Your task to perform on an android device: Do I have any events today? Image 0: 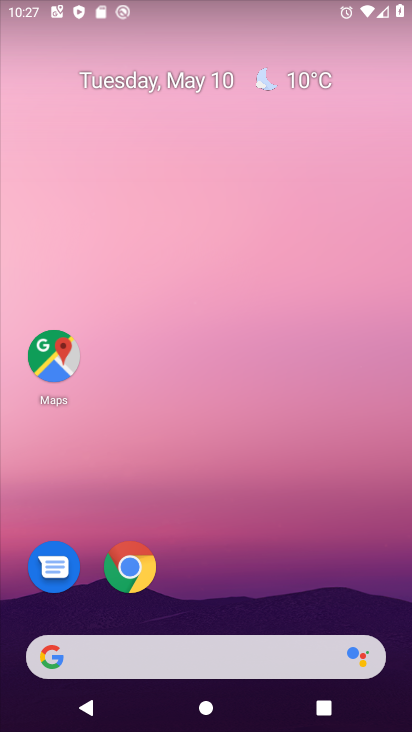
Step 0: drag from (349, 595) to (360, 0)
Your task to perform on an android device: Do I have any events today? Image 1: 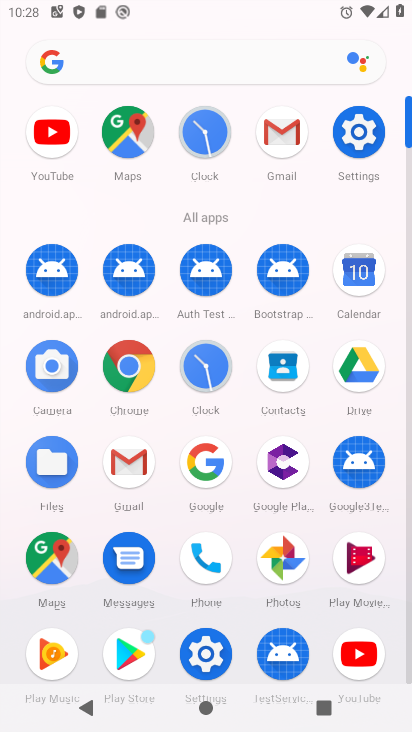
Step 1: click (346, 280)
Your task to perform on an android device: Do I have any events today? Image 2: 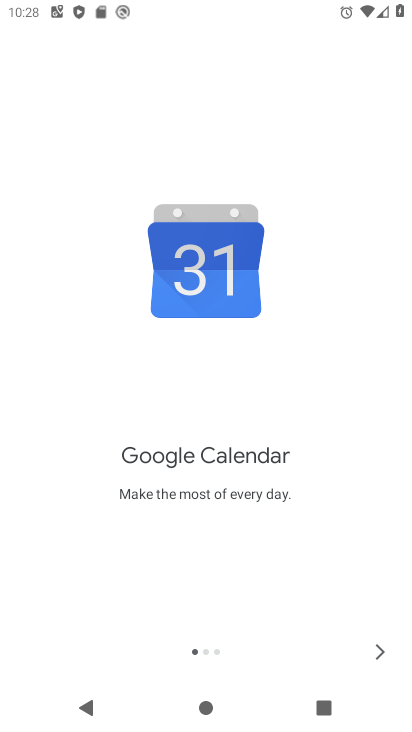
Step 2: click (373, 654)
Your task to perform on an android device: Do I have any events today? Image 3: 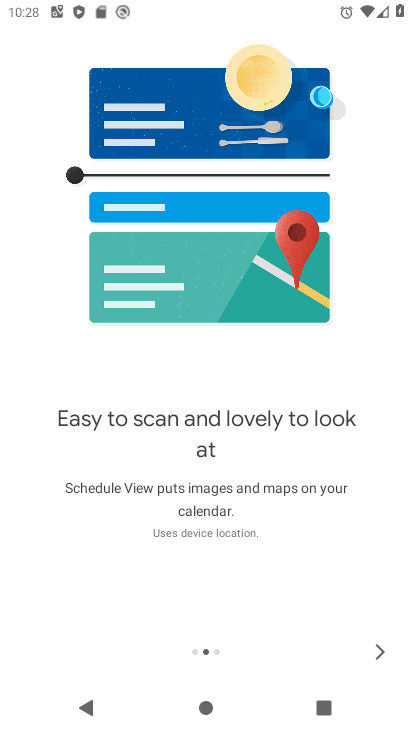
Step 3: click (373, 654)
Your task to perform on an android device: Do I have any events today? Image 4: 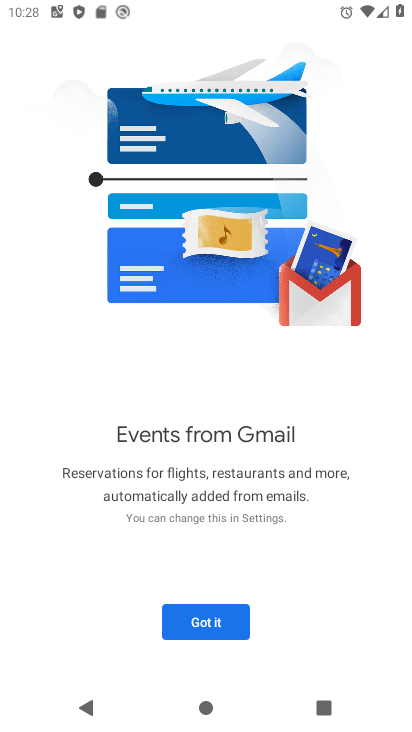
Step 4: click (228, 624)
Your task to perform on an android device: Do I have any events today? Image 5: 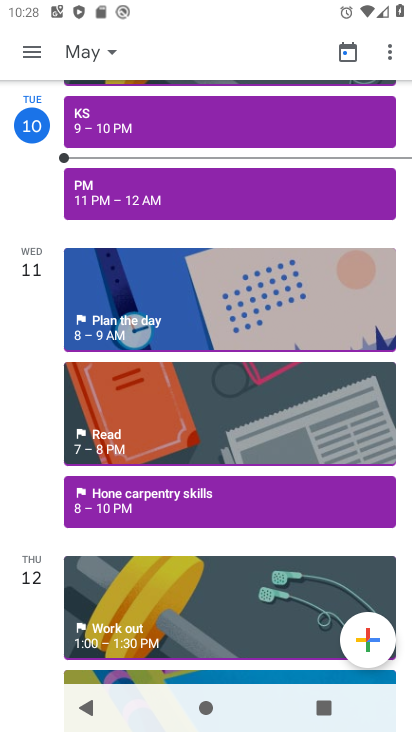
Step 5: click (110, 198)
Your task to perform on an android device: Do I have any events today? Image 6: 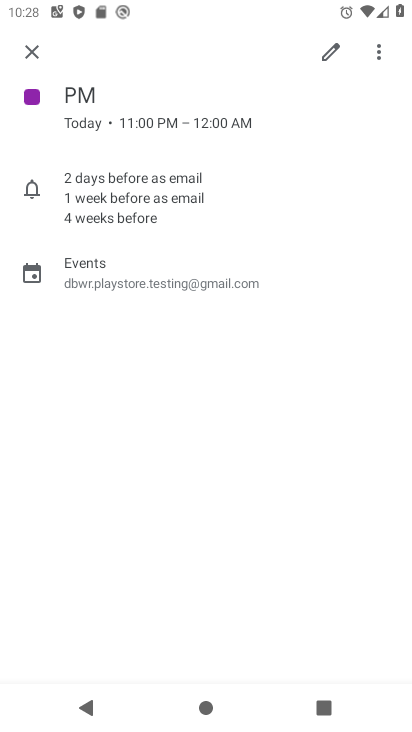
Step 6: task complete